Your task to perform on an android device: change timer sound Image 0: 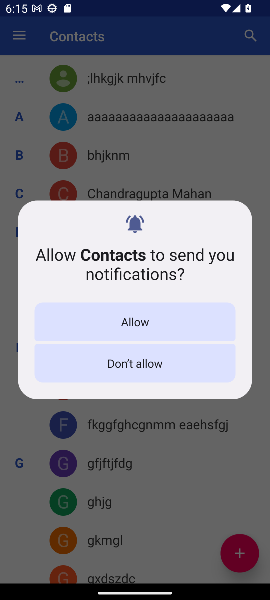
Step 0: press home button
Your task to perform on an android device: change timer sound Image 1: 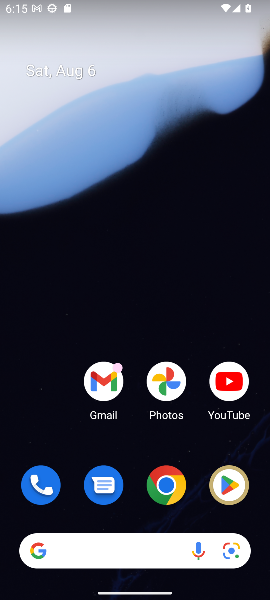
Step 1: drag from (47, 418) to (84, 5)
Your task to perform on an android device: change timer sound Image 2: 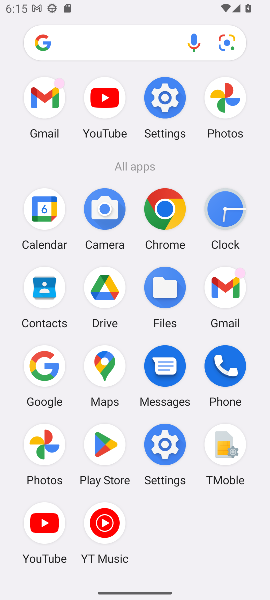
Step 2: click (230, 210)
Your task to perform on an android device: change timer sound Image 3: 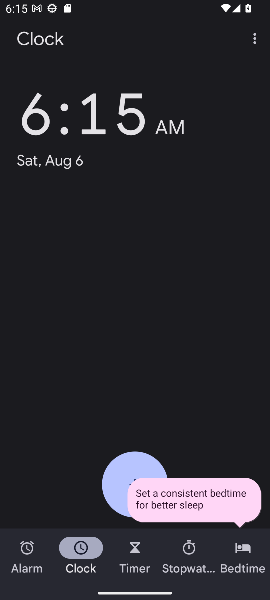
Step 3: click (257, 35)
Your task to perform on an android device: change timer sound Image 4: 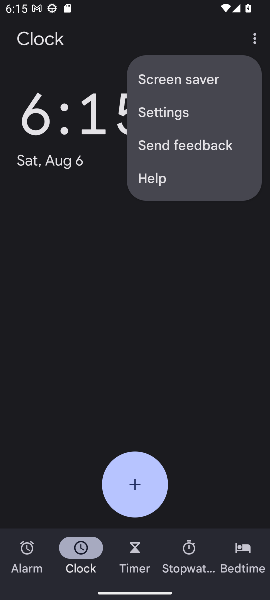
Step 4: click (182, 108)
Your task to perform on an android device: change timer sound Image 5: 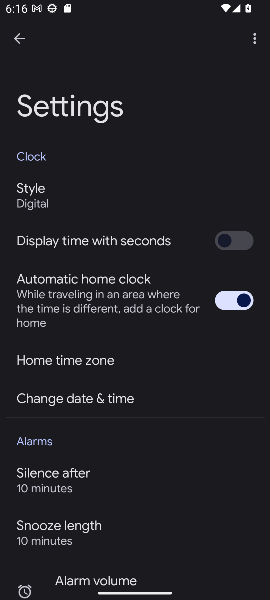
Step 5: drag from (150, 499) to (150, 141)
Your task to perform on an android device: change timer sound Image 6: 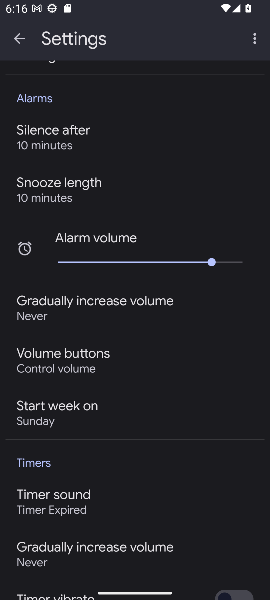
Step 6: click (58, 494)
Your task to perform on an android device: change timer sound Image 7: 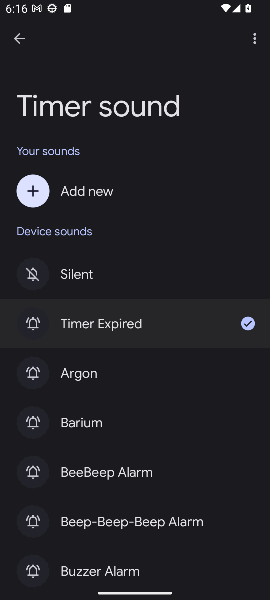
Step 7: click (78, 376)
Your task to perform on an android device: change timer sound Image 8: 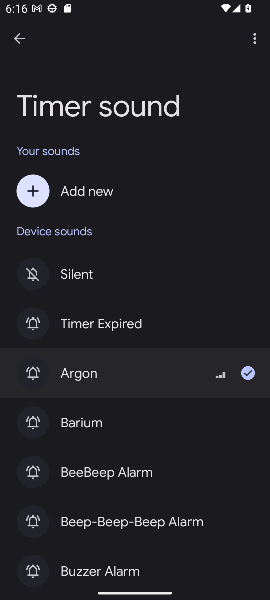
Step 8: task complete